Your task to perform on an android device: When is my next meeting? Image 0: 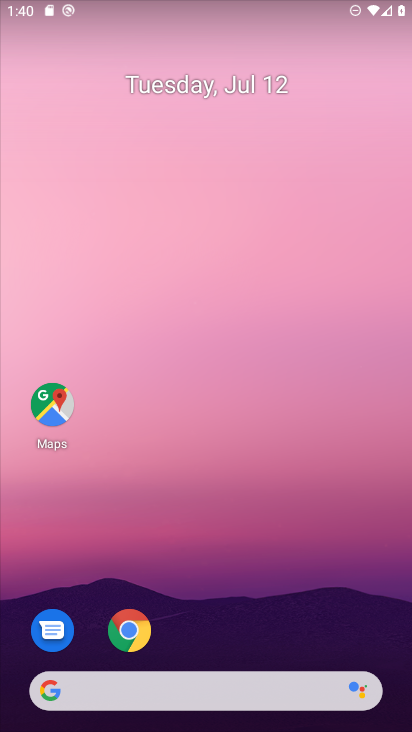
Step 0: drag from (354, 619) to (315, 33)
Your task to perform on an android device: When is my next meeting? Image 1: 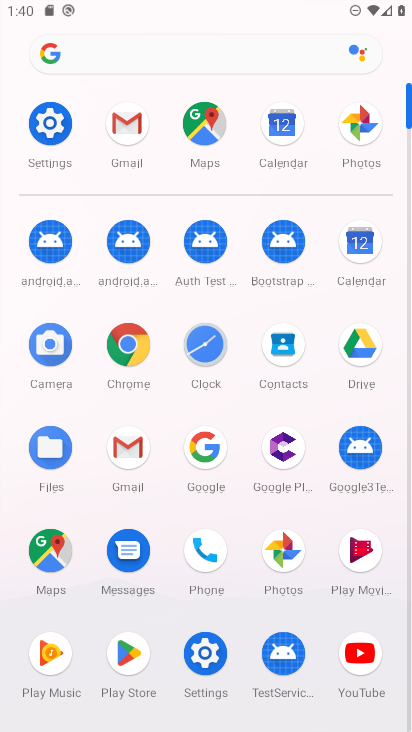
Step 1: click (359, 242)
Your task to perform on an android device: When is my next meeting? Image 2: 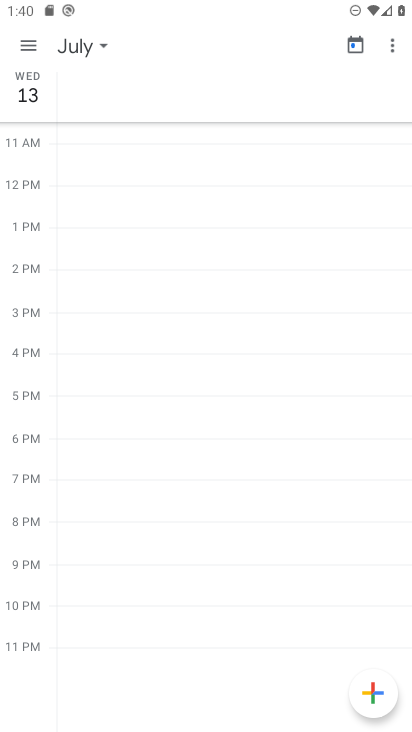
Step 2: click (30, 45)
Your task to perform on an android device: When is my next meeting? Image 3: 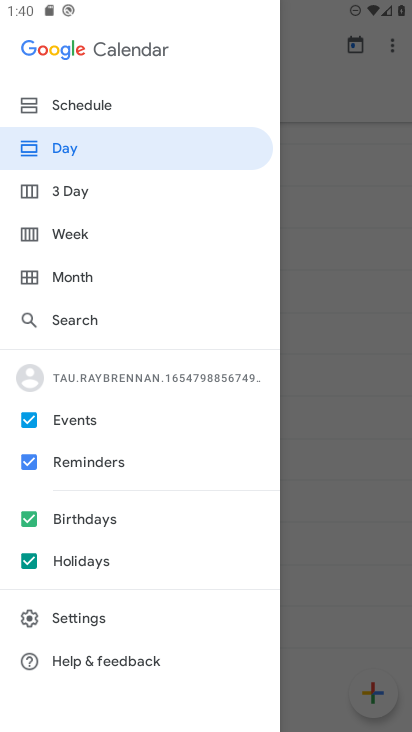
Step 3: click (93, 102)
Your task to perform on an android device: When is my next meeting? Image 4: 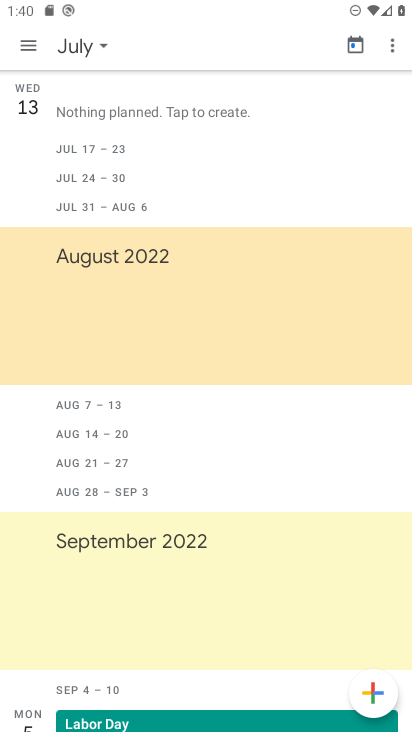
Step 4: task complete